Your task to perform on an android device: Do I have any events tomorrow? Image 0: 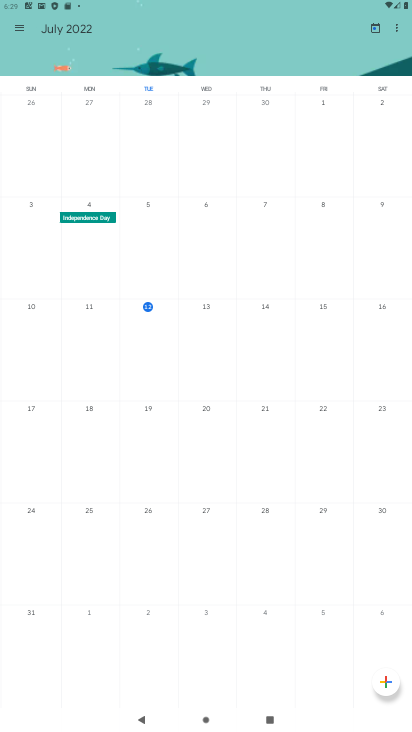
Step 0: click (213, 326)
Your task to perform on an android device: Do I have any events tomorrow? Image 1: 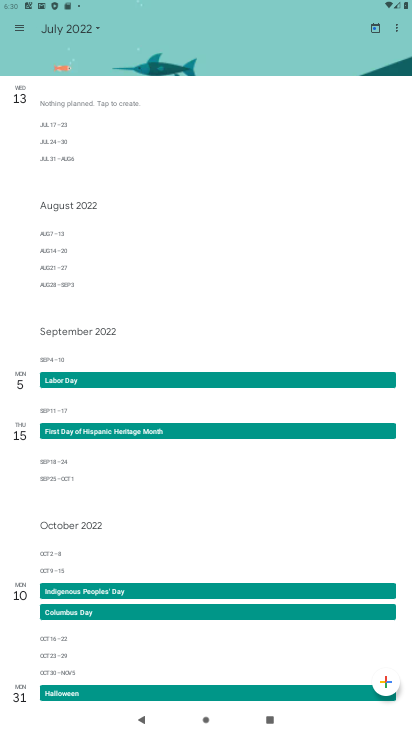
Step 1: task complete